Your task to perform on an android device: set the stopwatch Image 0: 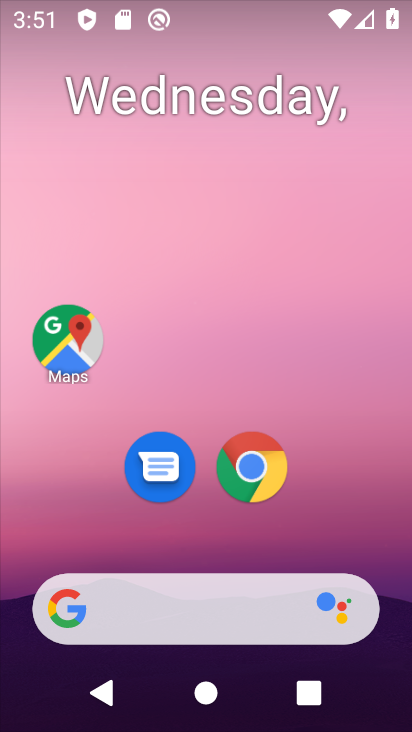
Step 0: drag from (323, 546) to (60, 0)
Your task to perform on an android device: set the stopwatch Image 1: 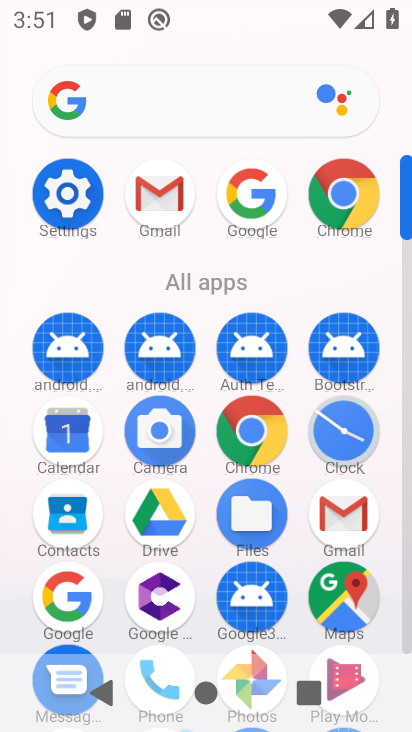
Step 1: click (344, 429)
Your task to perform on an android device: set the stopwatch Image 2: 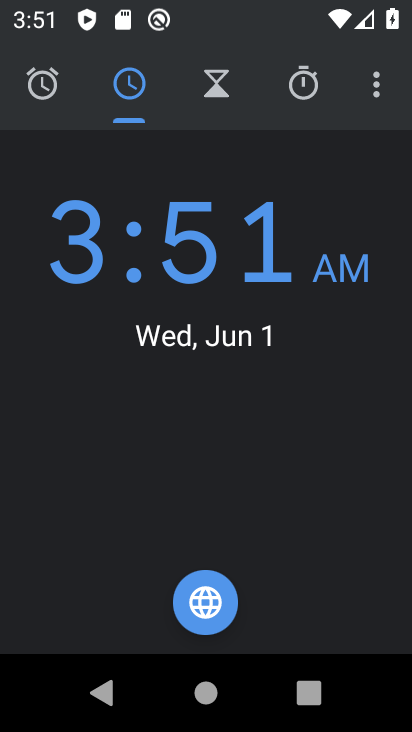
Step 2: click (309, 83)
Your task to perform on an android device: set the stopwatch Image 3: 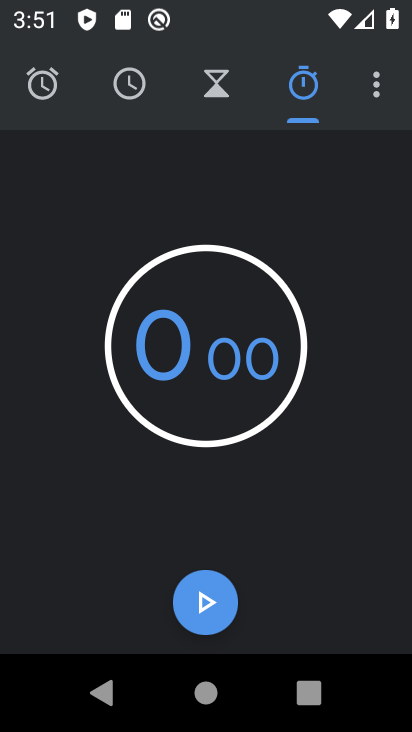
Step 3: click (204, 610)
Your task to perform on an android device: set the stopwatch Image 4: 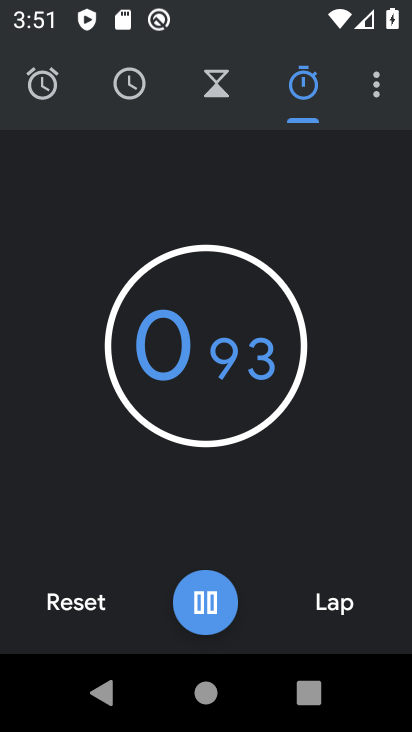
Step 4: task complete